Your task to perform on an android device: Open wifi settings Image 0: 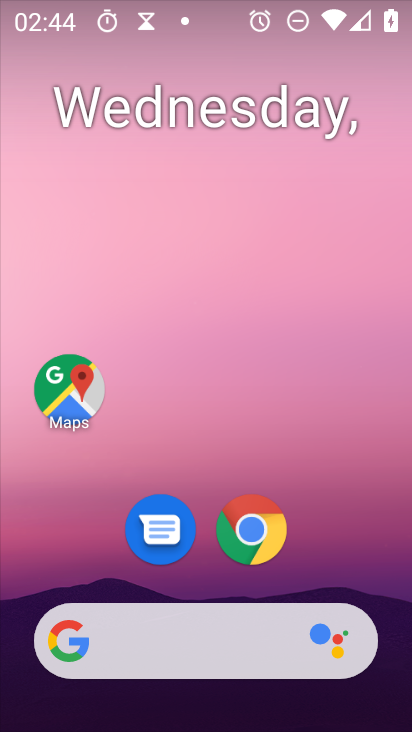
Step 0: drag from (224, 642) to (325, 7)
Your task to perform on an android device: Open wifi settings Image 1: 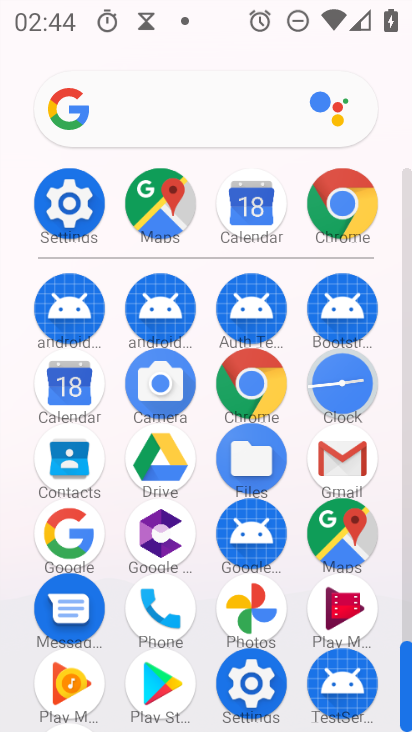
Step 1: click (83, 197)
Your task to perform on an android device: Open wifi settings Image 2: 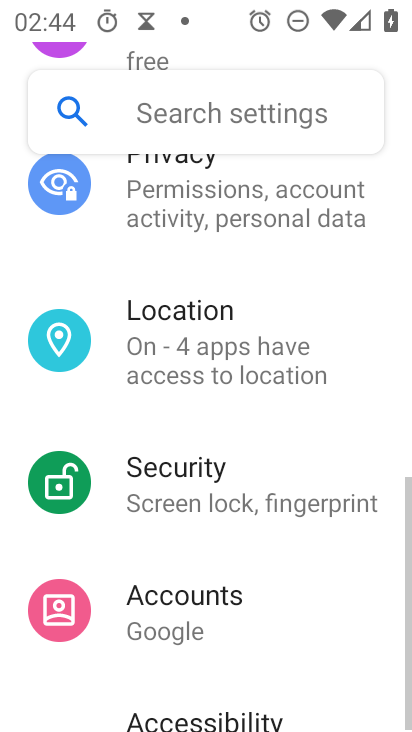
Step 2: drag from (182, 250) to (250, 731)
Your task to perform on an android device: Open wifi settings Image 3: 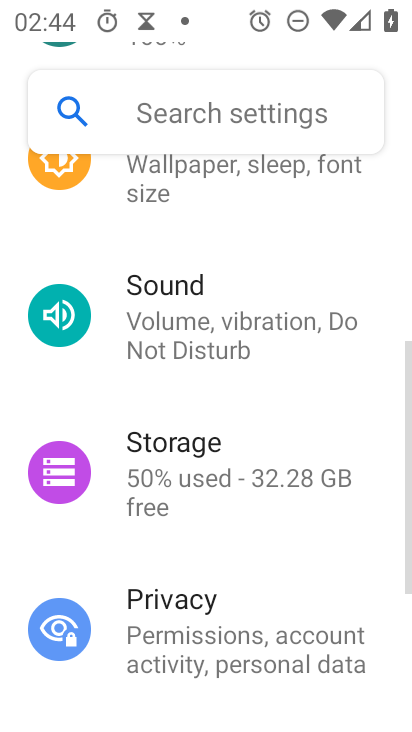
Step 3: drag from (239, 313) to (297, 715)
Your task to perform on an android device: Open wifi settings Image 4: 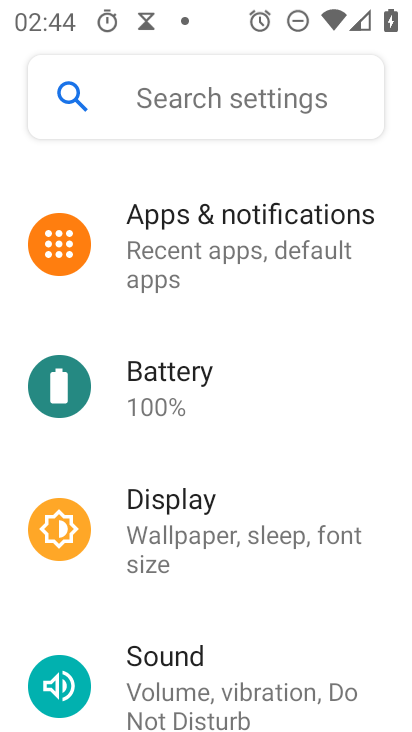
Step 4: click (214, 237)
Your task to perform on an android device: Open wifi settings Image 5: 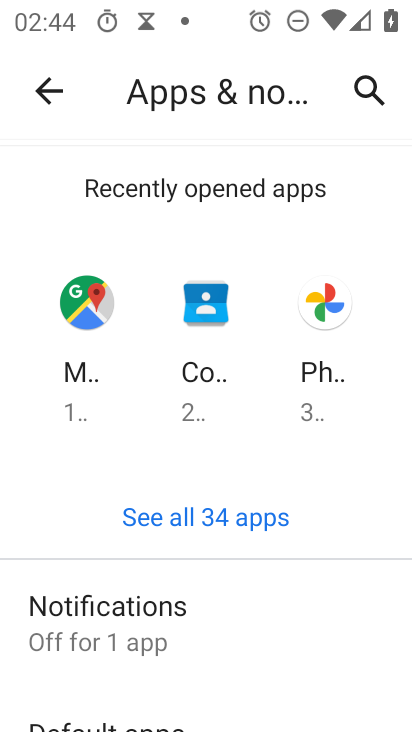
Step 5: press back button
Your task to perform on an android device: Open wifi settings Image 6: 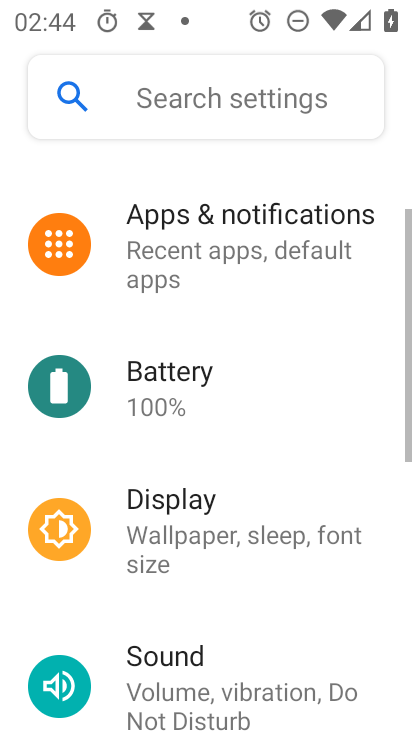
Step 6: drag from (230, 223) to (266, 706)
Your task to perform on an android device: Open wifi settings Image 7: 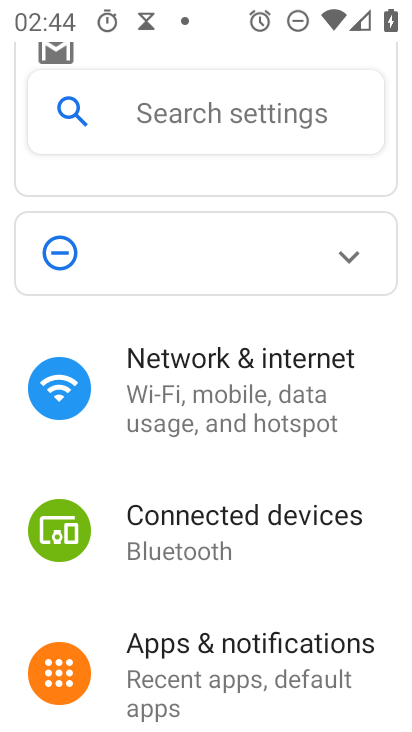
Step 7: click (226, 379)
Your task to perform on an android device: Open wifi settings Image 8: 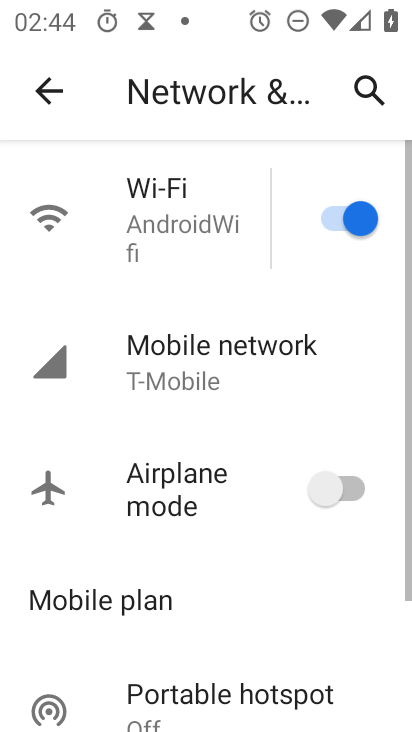
Step 8: click (166, 209)
Your task to perform on an android device: Open wifi settings Image 9: 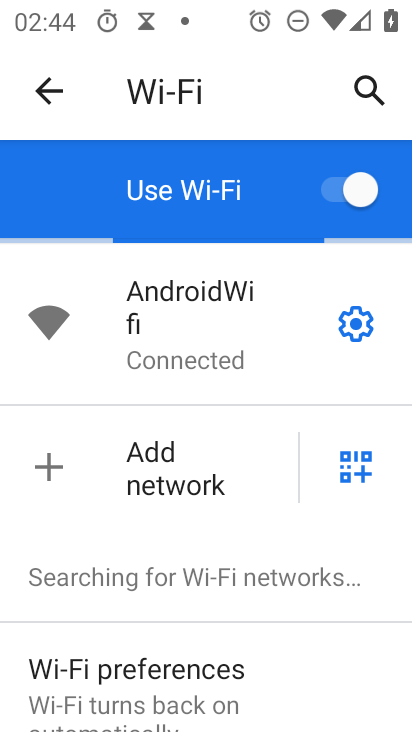
Step 9: task complete